Your task to perform on an android device: turn on wifi Image 0: 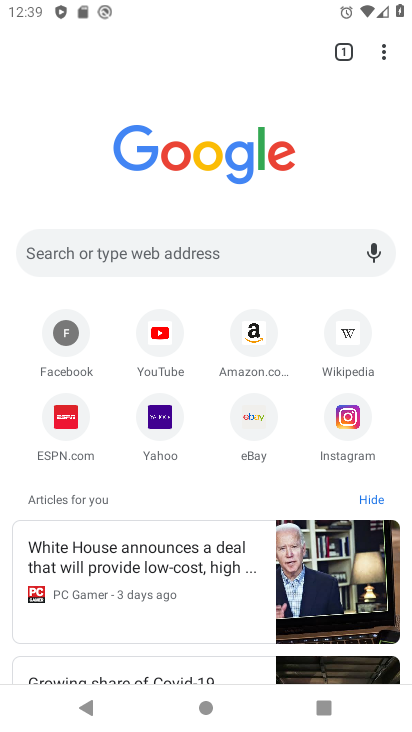
Step 0: press home button
Your task to perform on an android device: turn on wifi Image 1: 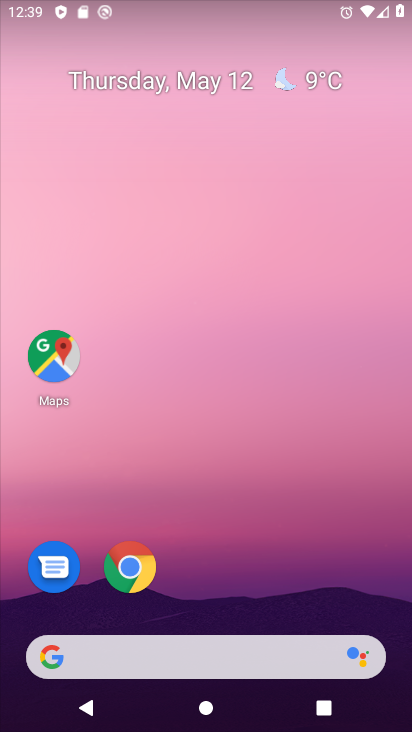
Step 1: drag from (188, 606) to (332, 88)
Your task to perform on an android device: turn on wifi Image 2: 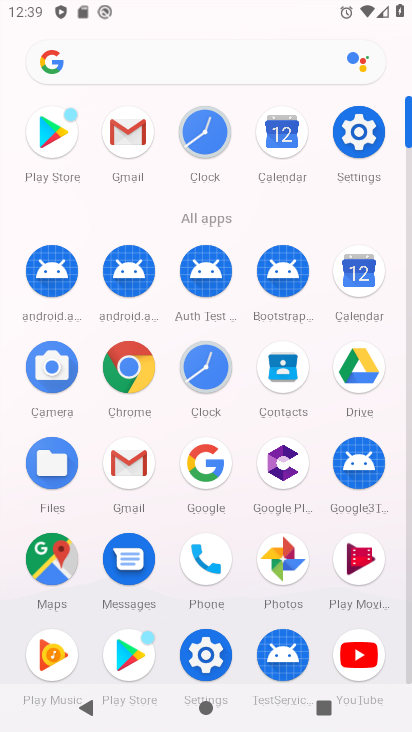
Step 2: click (203, 662)
Your task to perform on an android device: turn on wifi Image 3: 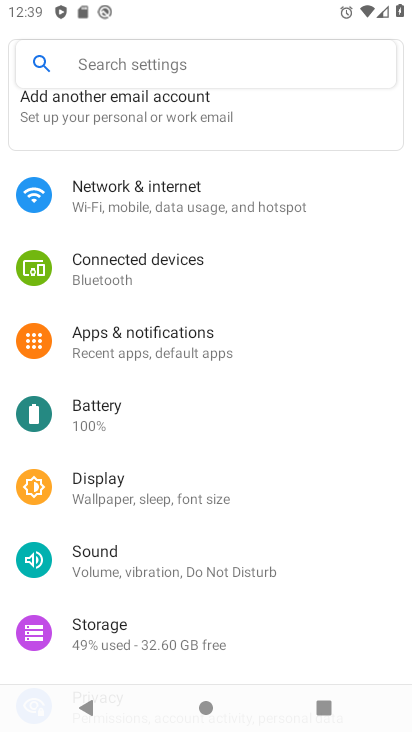
Step 3: click (278, 201)
Your task to perform on an android device: turn on wifi Image 4: 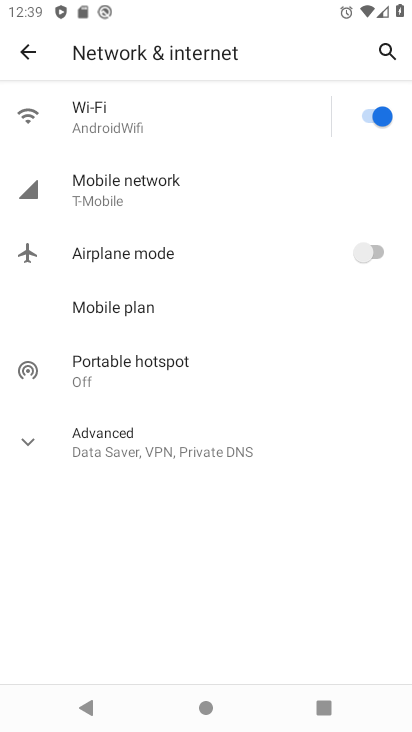
Step 4: click (144, 139)
Your task to perform on an android device: turn on wifi Image 5: 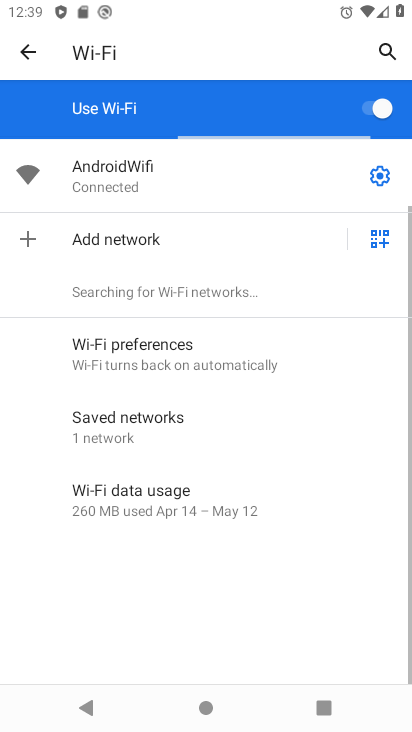
Step 5: task complete